Your task to perform on an android device: uninstall "The Home Depot" Image 0: 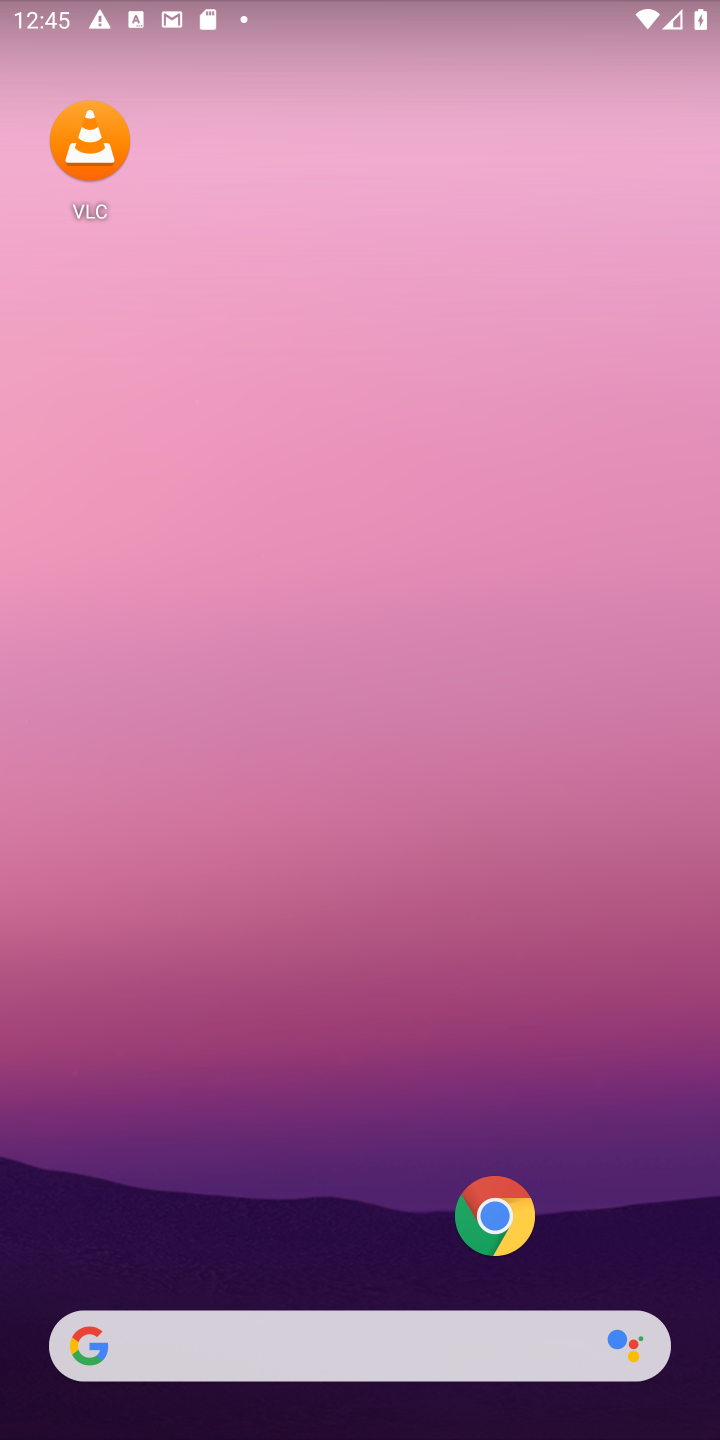
Step 0: drag from (292, 1340) to (313, 204)
Your task to perform on an android device: uninstall "The Home Depot" Image 1: 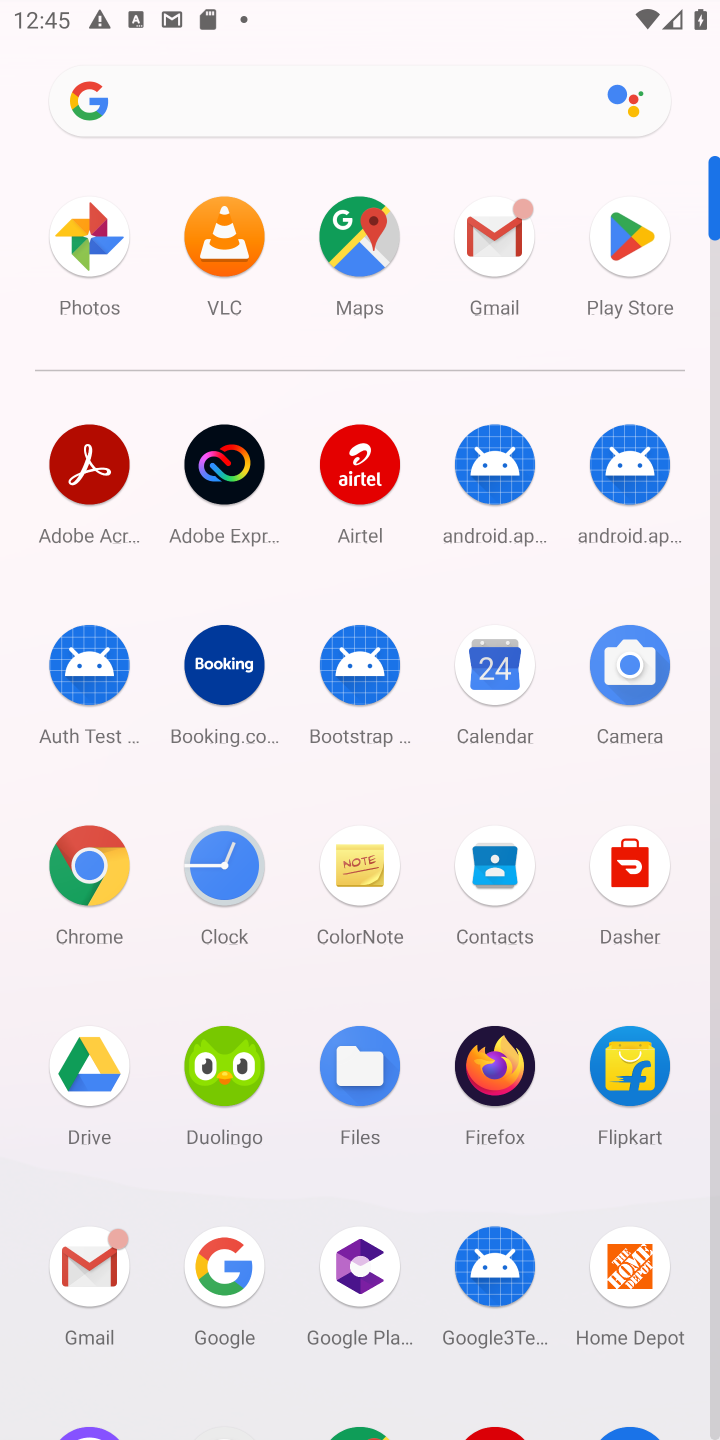
Step 1: click (620, 235)
Your task to perform on an android device: uninstall "The Home Depot" Image 2: 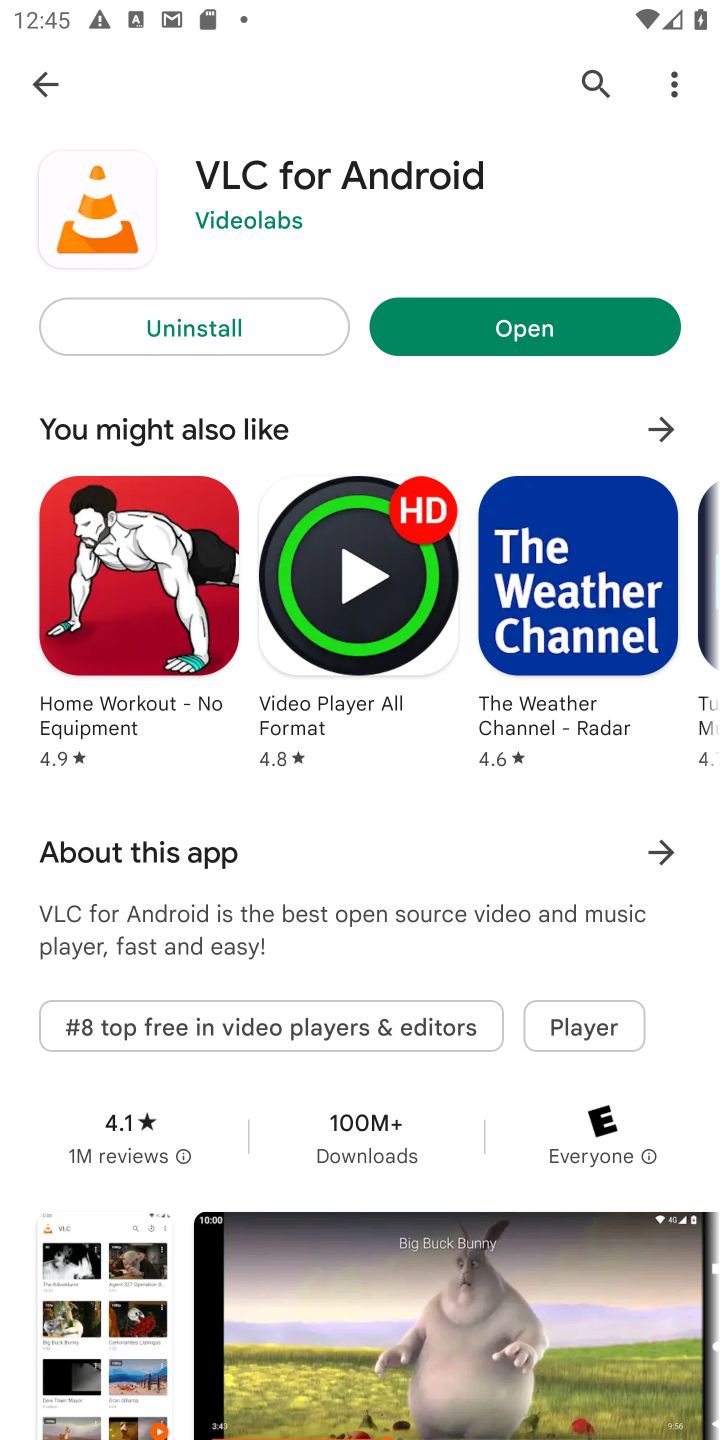
Step 2: press back button
Your task to perform on an android device: uninstall "The Home Depot" Image 3: 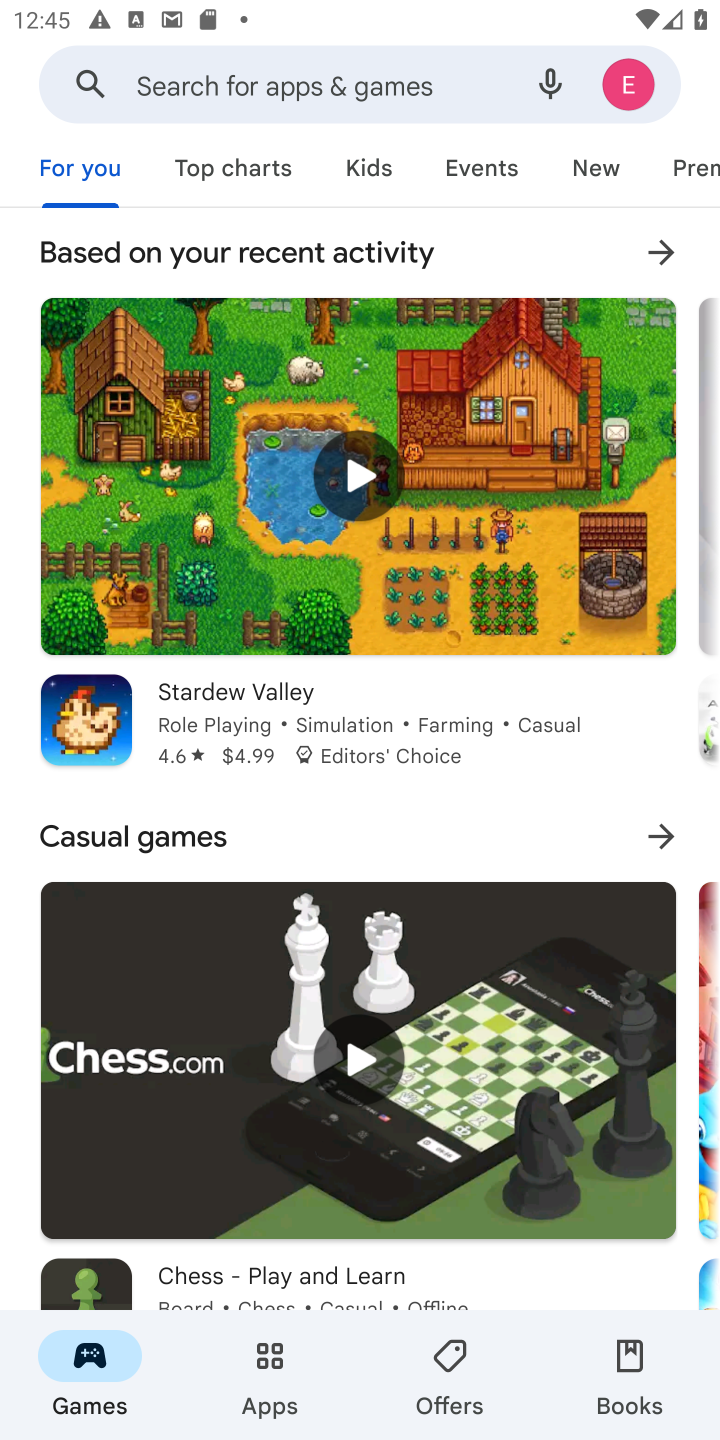
Step 3: click (286, 82)
Your task to perform on an android device: uninstall "The Home Depot" Image 4: 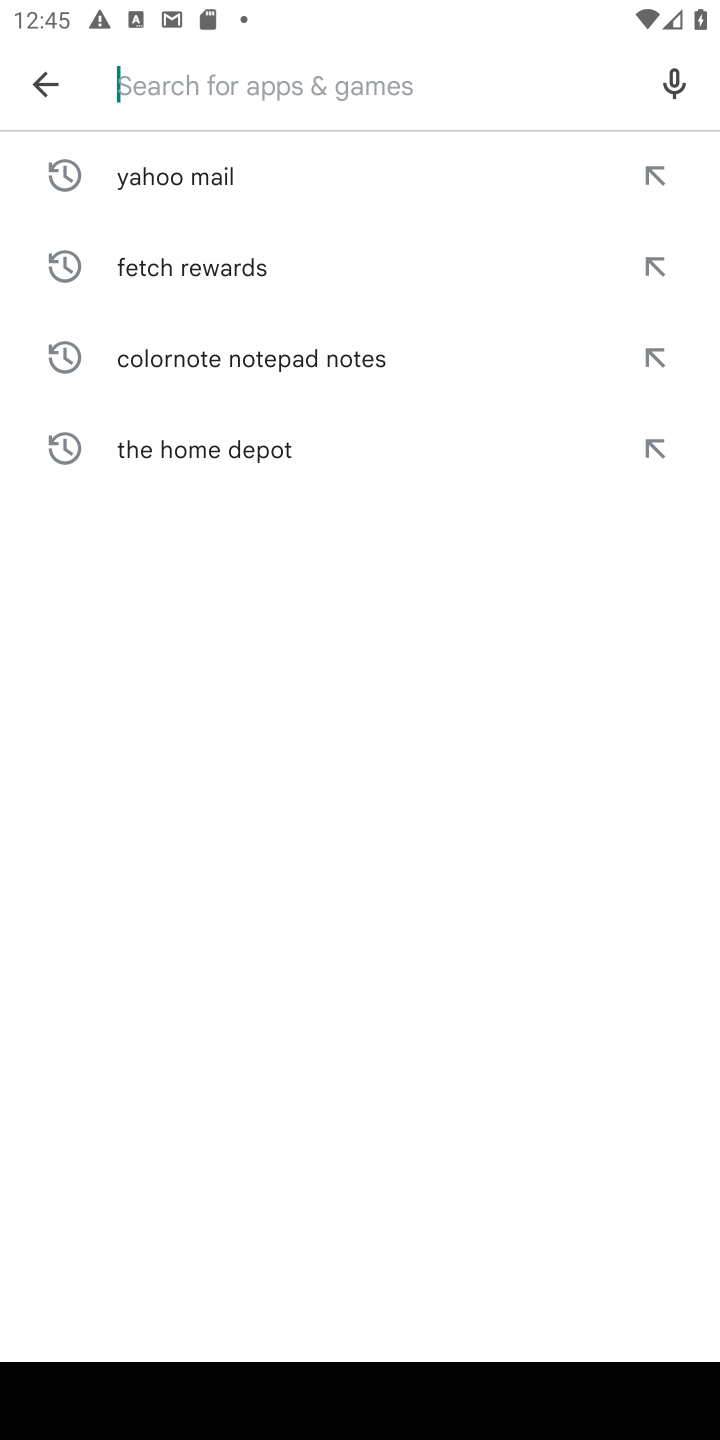
Step 4: type "The Home Depot"
Your task to perform on an android device: uninstall "The Home Depot" Image 5: 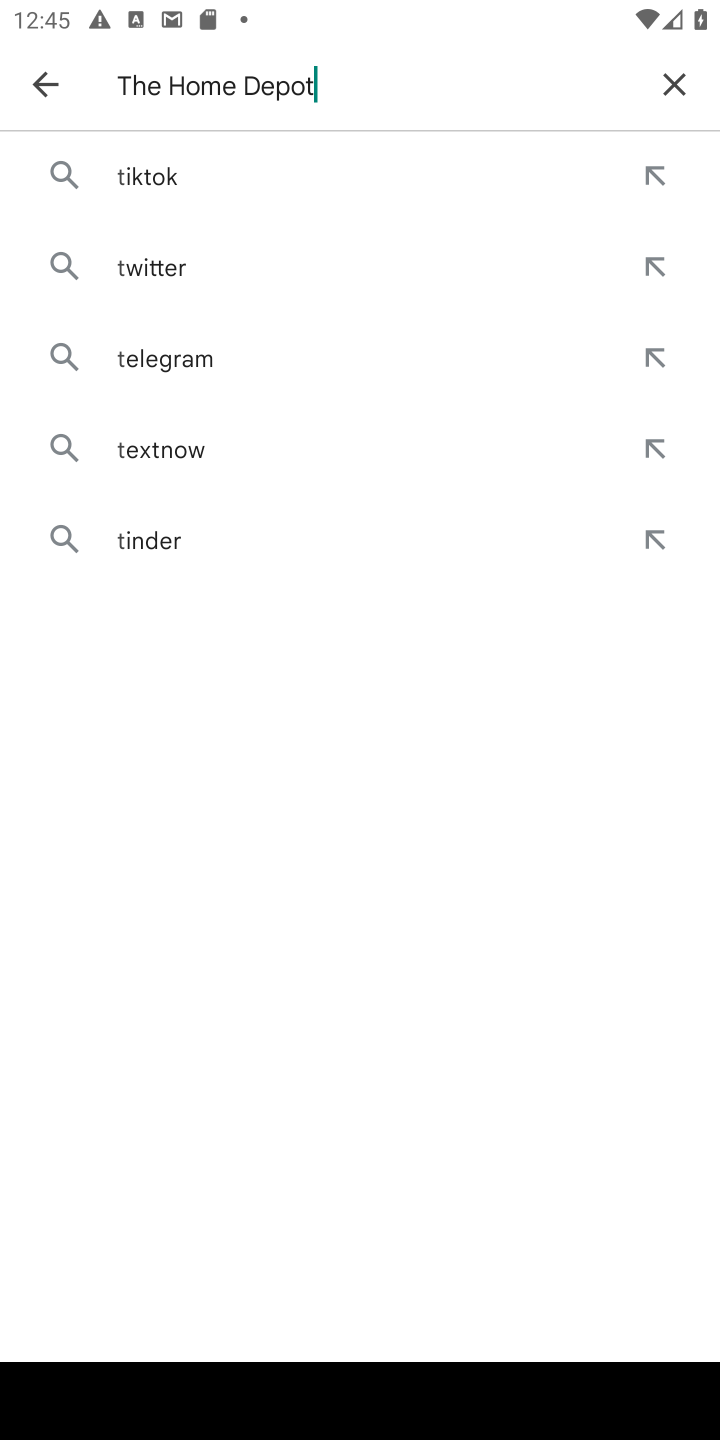
Step 5: type ""
Your task to perform on an android device: uninstall "The Home Depot" Image 6: 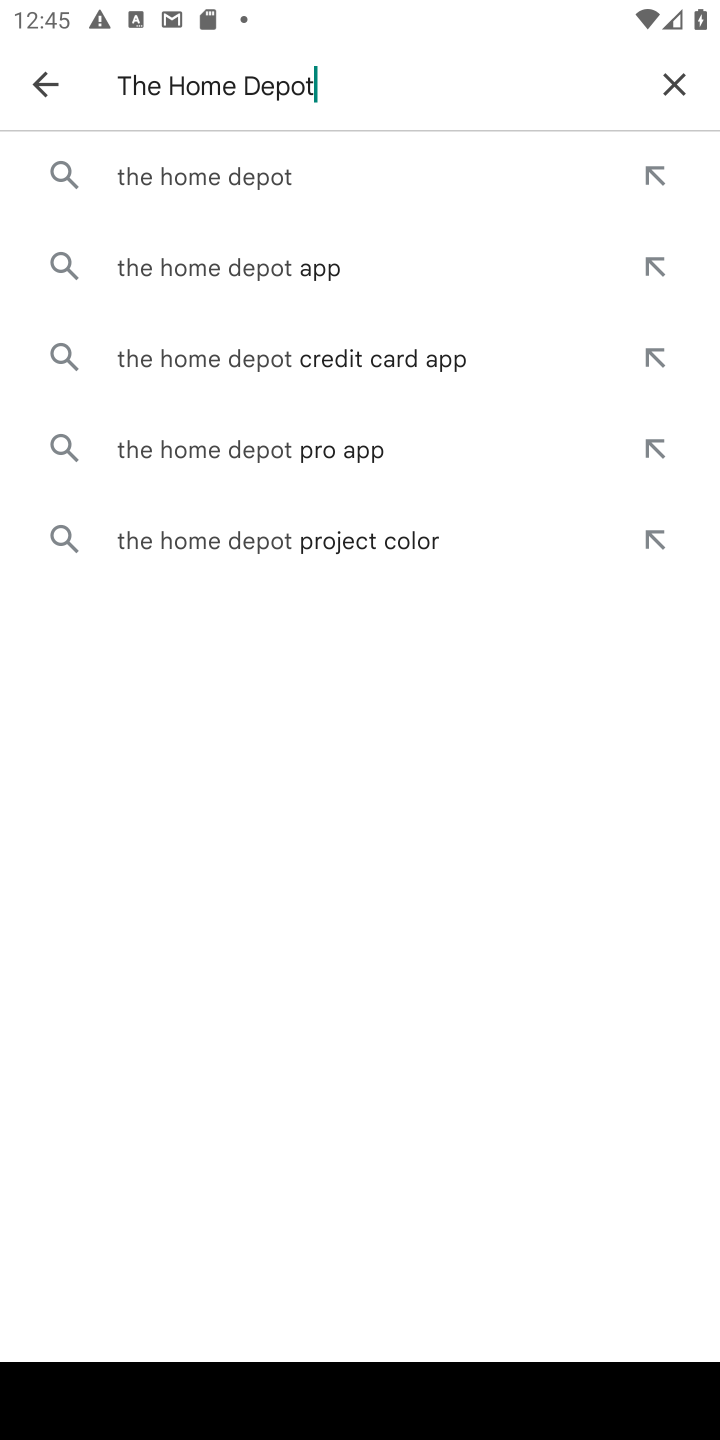
Step 6: click (224, 188)
Your task to perform on an android device: uninstall "The Home Depot" Image 7: 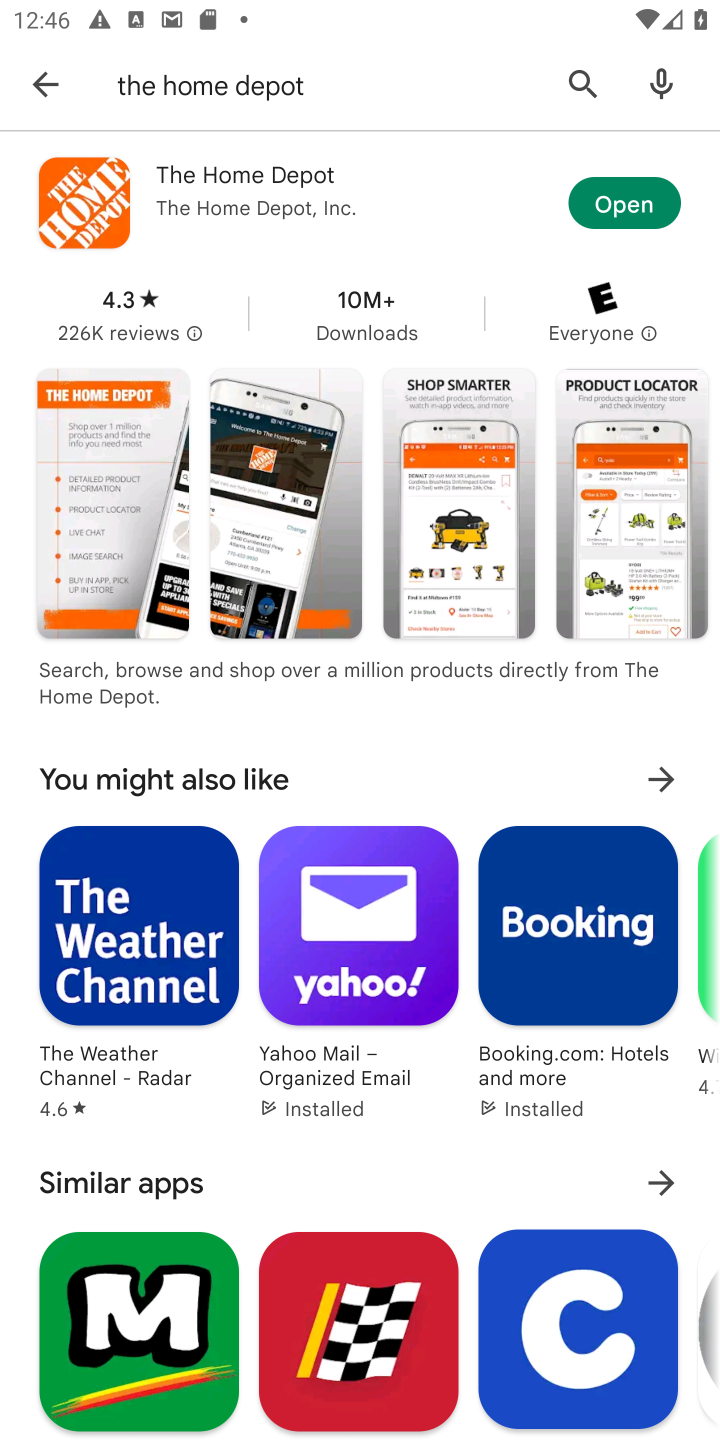
Step 7: click (172, 168)
Your task to perform on an android device: uninstall "The Home Depot" Image 8: 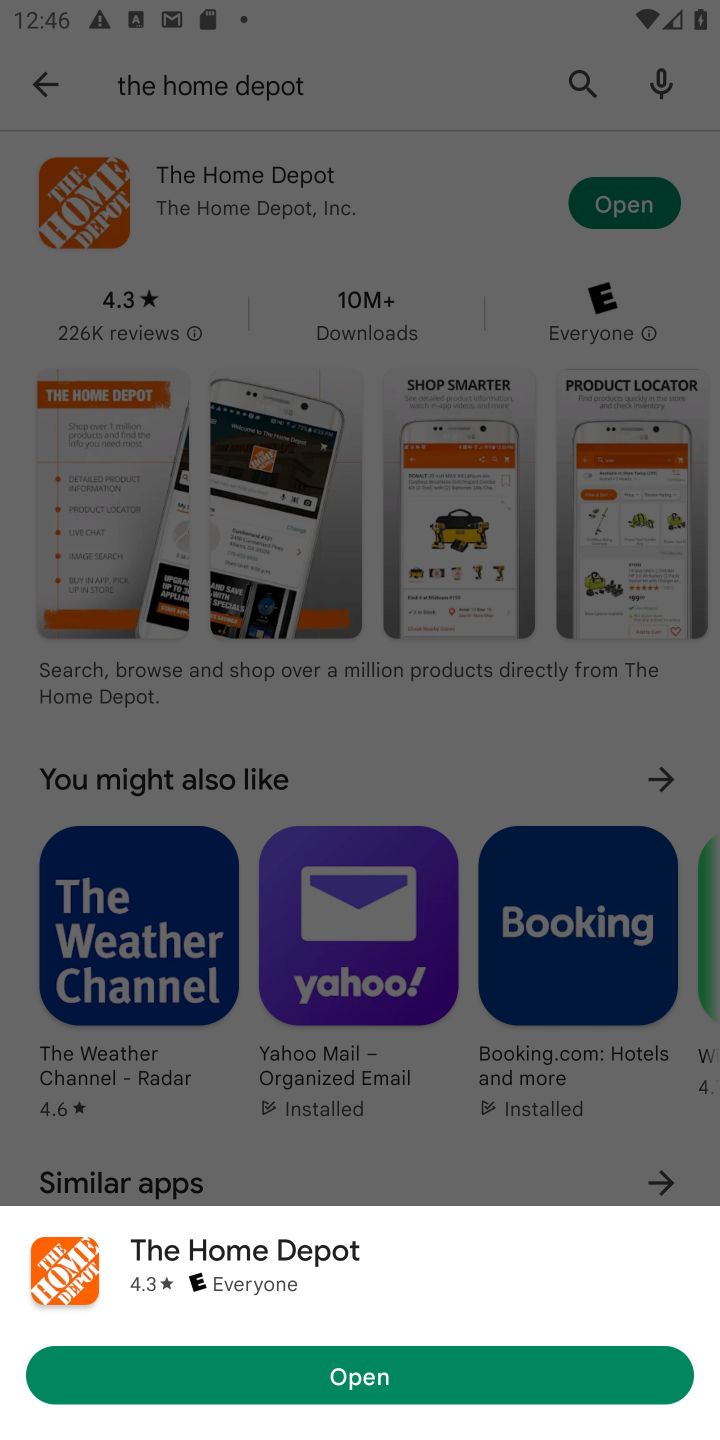
Step 8: click (93, 188)
Your task to perform on an android device: uninstall "The Home Depot" Image 9: 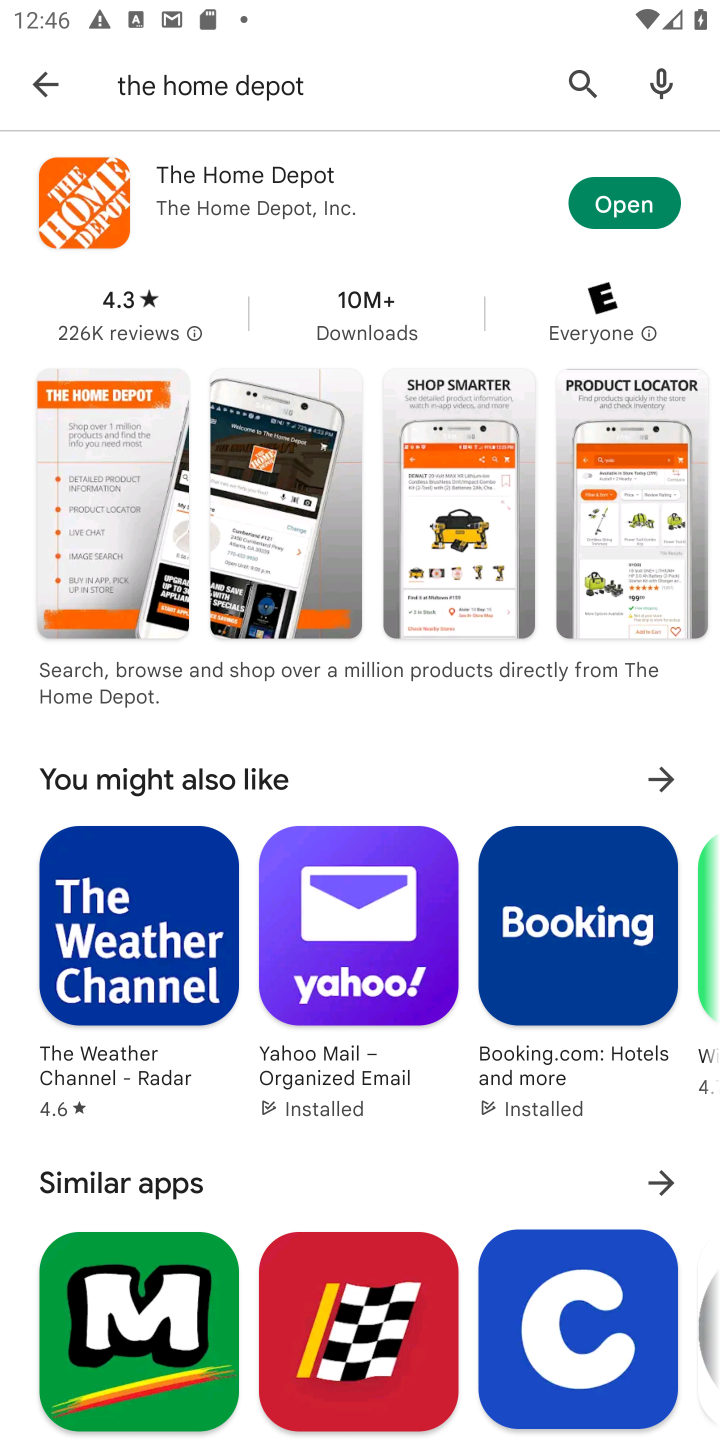
Step 9: click (93, 188)
Your task to perform on an android device: uninstall "The Home Depot" Image 10: 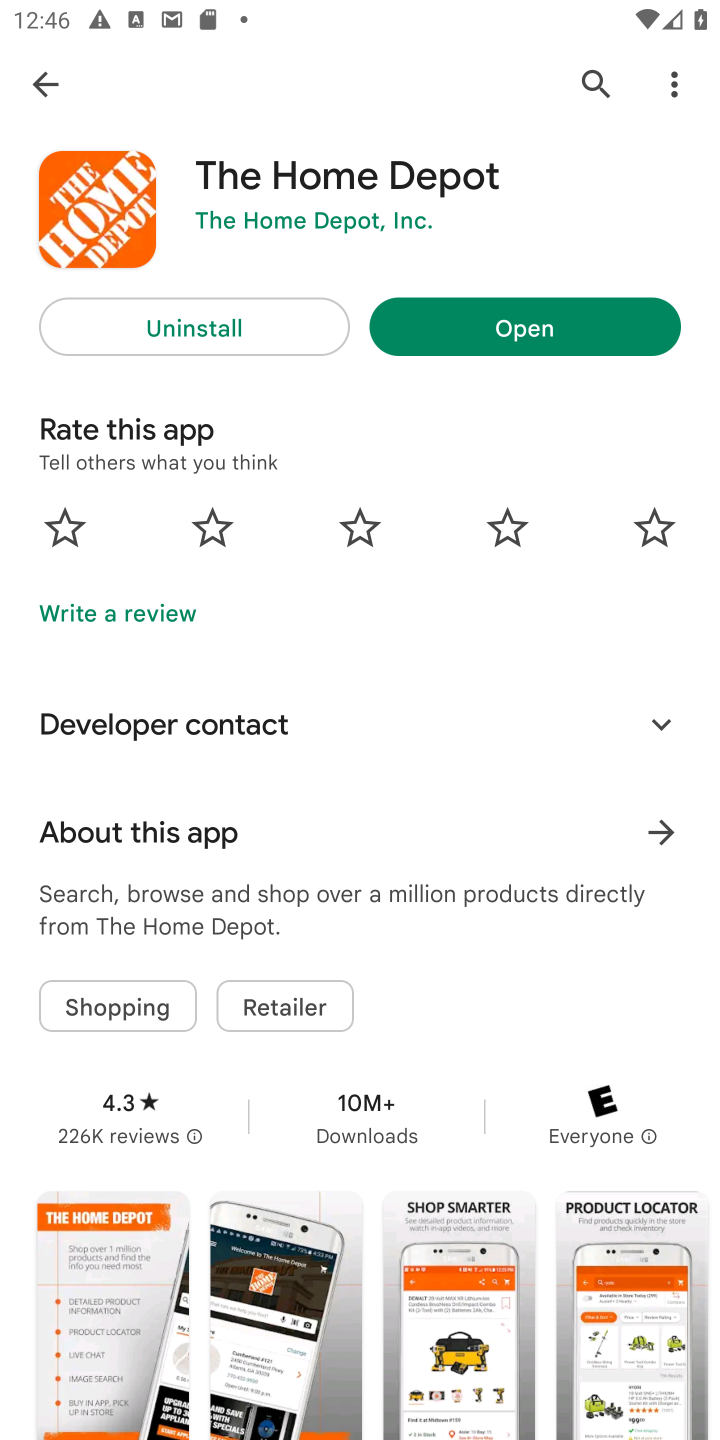
Step 10: click (226, 340)
Your task to perform on an android device: uninstall "The Home Depot" Image 11: 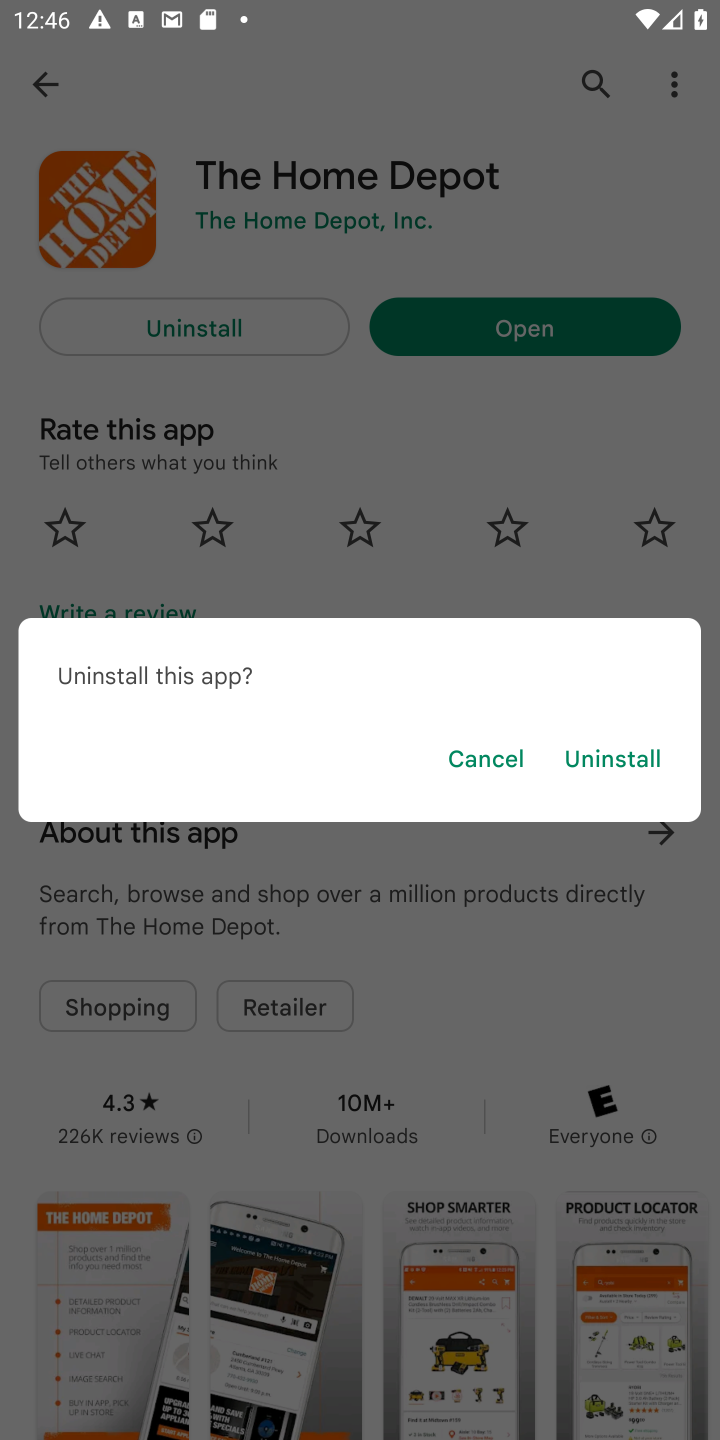
Step 11: click (634, 757)
Your task to perform on an android device: uninstall "The Home Depot" Image 12: 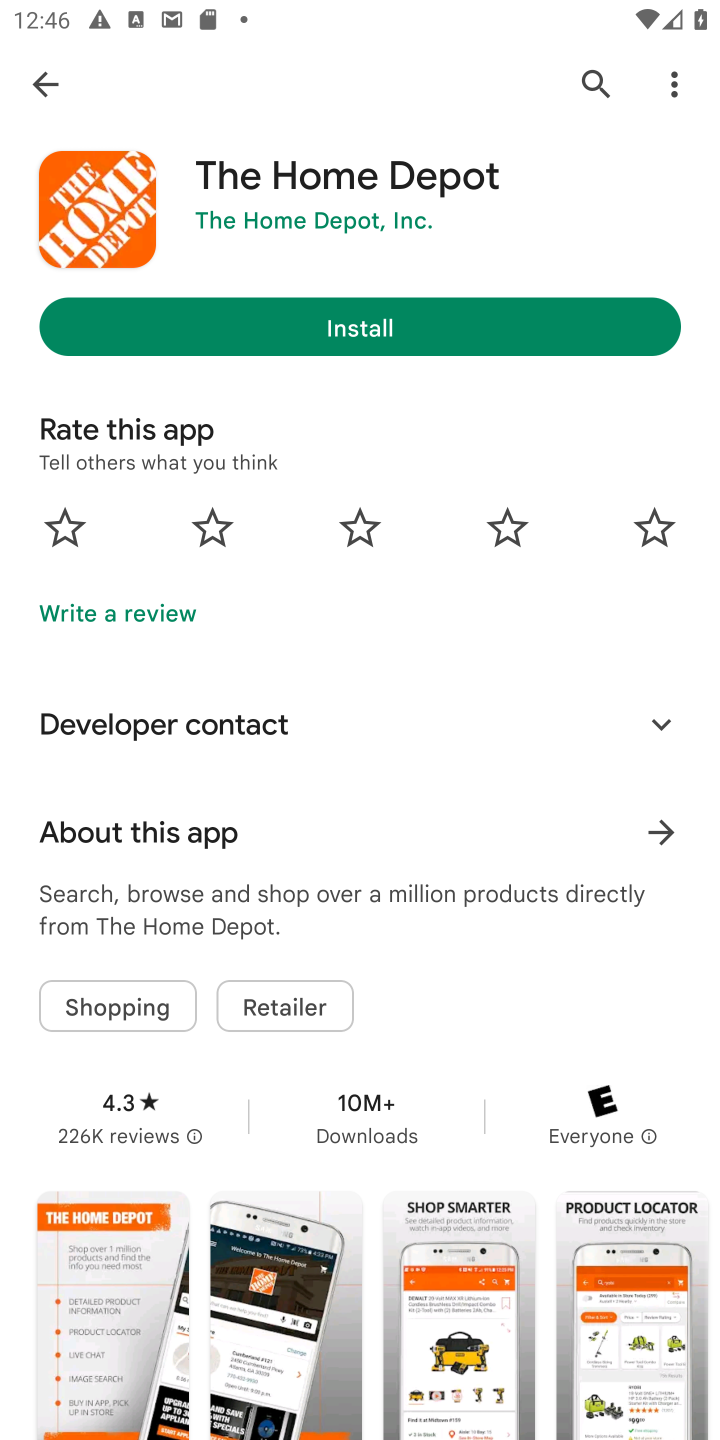
Step 12: task complete